Your task to perform on an android device: What's the weather like in Sydney? Image 0: 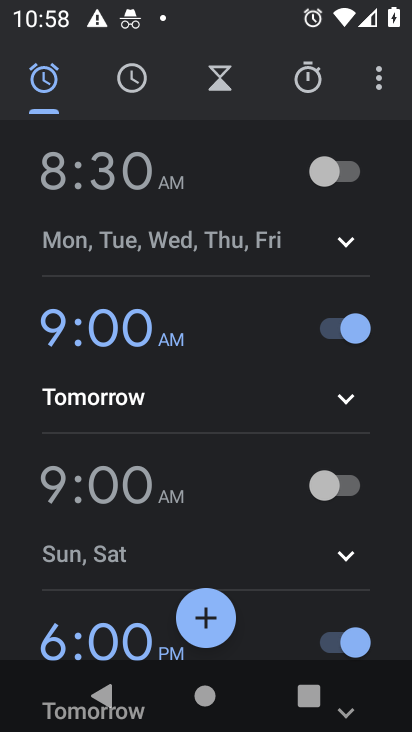
Step 0: press home button
Your task to perform on an android device: What's the weather like in Sydney? Image 1: 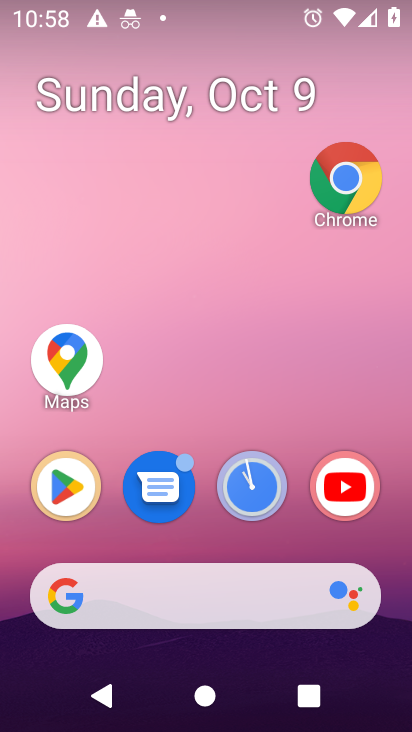
Step 1: drag from (263, 558) to (286, 95)
Your task to perform on an android device: What's the weather like in Sydney? Image 2: 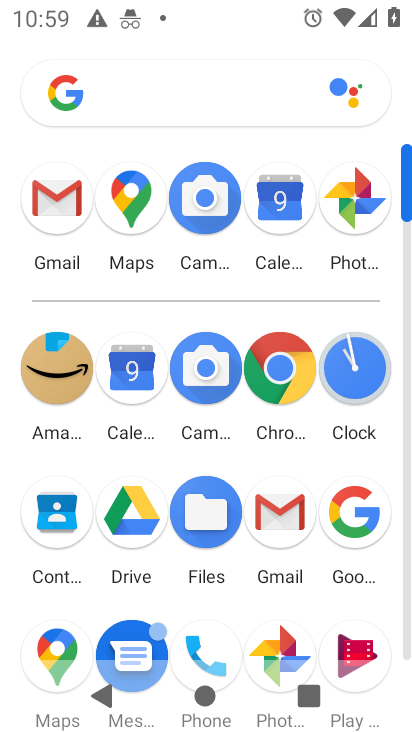
Step 2: click (346, 519)
Your task to perform on an android device: What's the weather like in Sydney? Image 3: 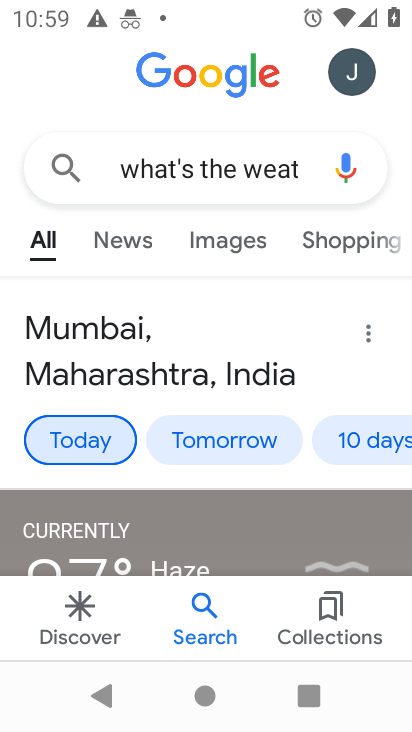
Step 3: click (252, 178)
Your task to perform on an android device: What's the weather like in Sydney? Image 4: 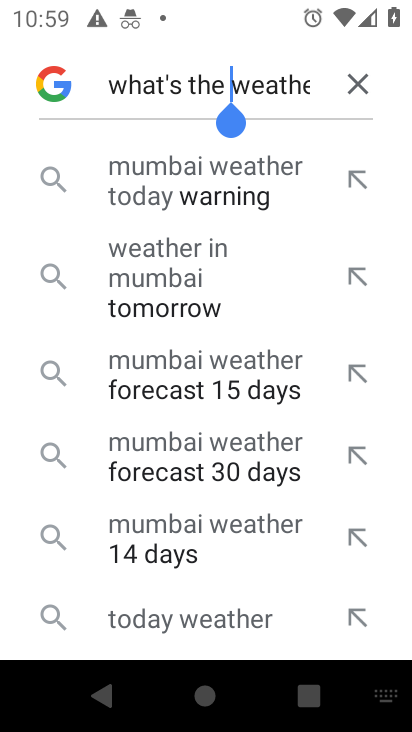
Step 4: click (365, 78)
Your task to perform on an android device: What's the weather like in Sydney? Image 5: 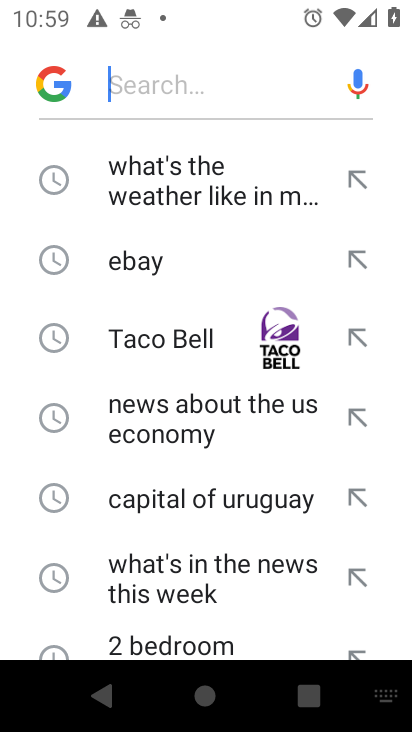
Step 5: type "What's the weather like in Sydney?"
Your task to perform on an android device: What's the weather like in Sydney? Image 6: 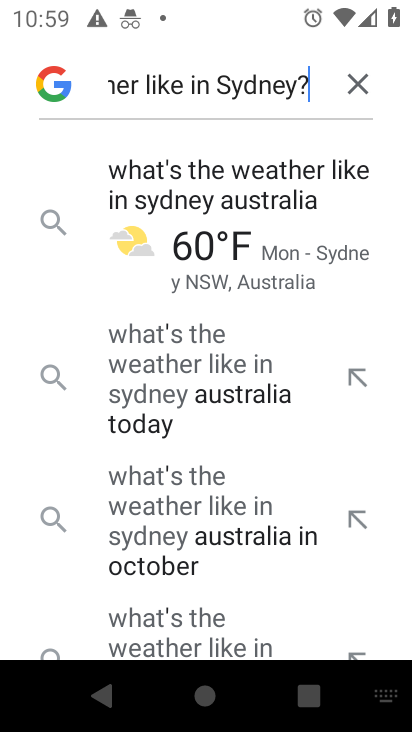
Step 6: click (207, 177)
Your task to perform on an android device: What's the weather like in Sydney? Image 7: 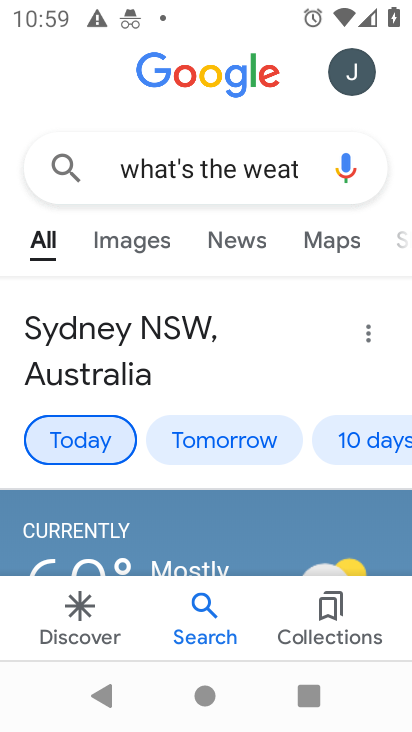
Step 7: task complete